Your task to perform on an android device: manage bookmarks in the chrome app Image 0: 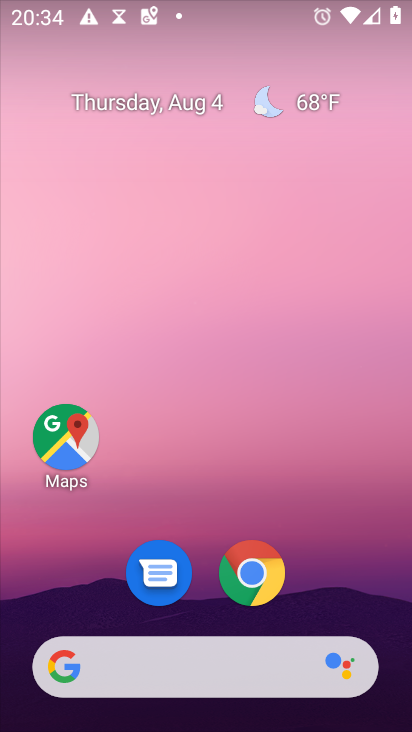
Step 0: click (239, 558)
Your task to perform on an android device: manage bookmarks in the chrome app Image 1: 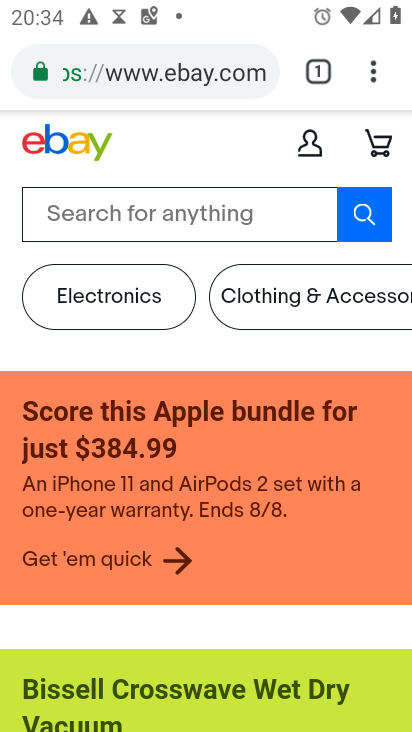
Step 1: drag from (371, 62) to (142, 284)
Your task to perform on an android device: manage bookmarks in the chrome app Image 2: 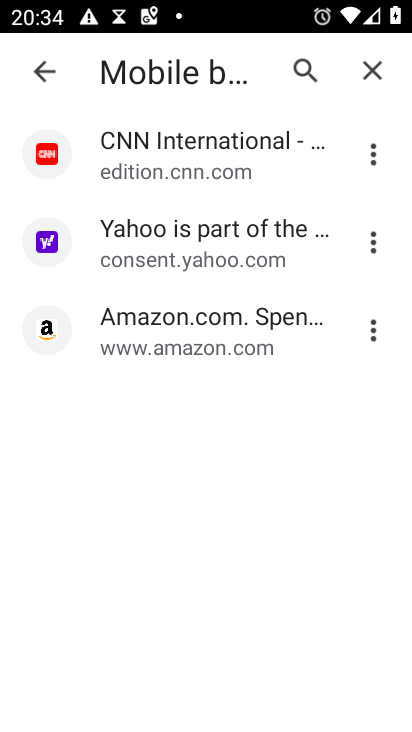
Step 2: click (374, 331)
Your task to perform on an android device: manage bookmarks in the chrome app Image 3: 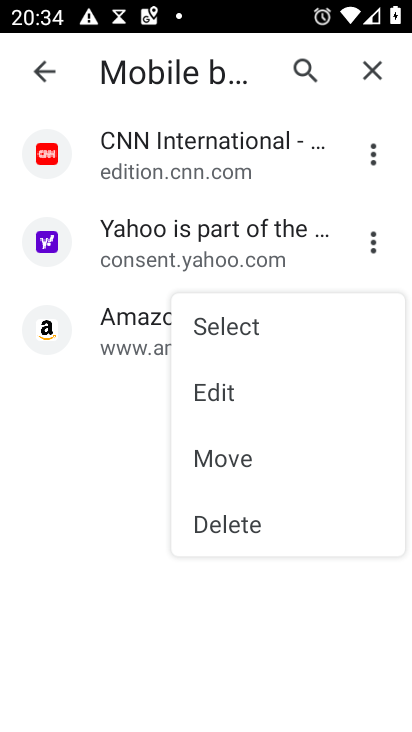
Step 3: click (264, 516)
Your task to perform on an android device: manage bookmarks in the chrome app Image 4: 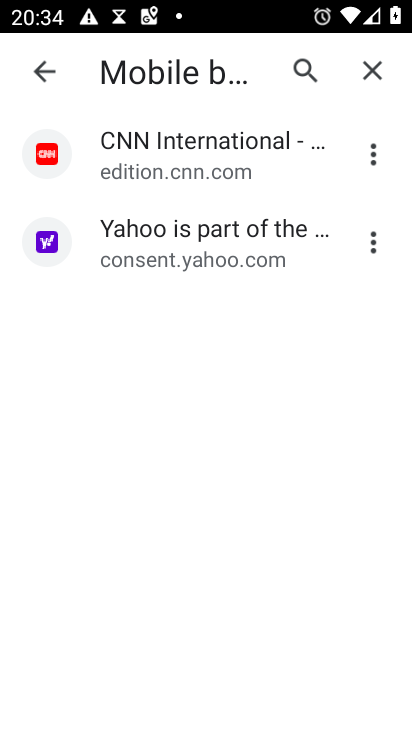
Step 4: task complete